Your task to perform on an android device: Open CNN.com Image 0: 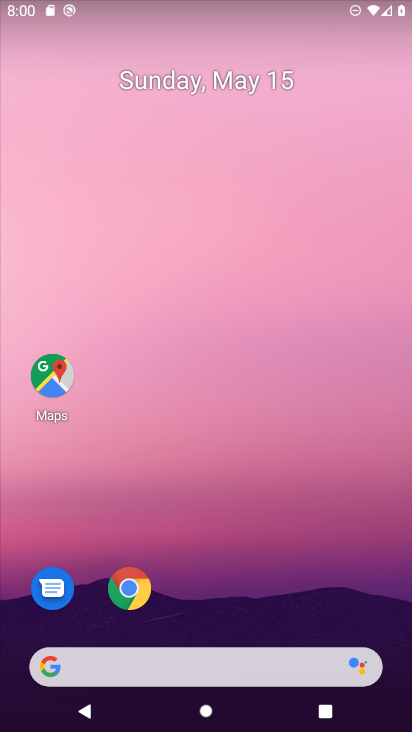
Step 0: click (126, 591)
Your task to perform on an android device: Open CNN.com Image 1: 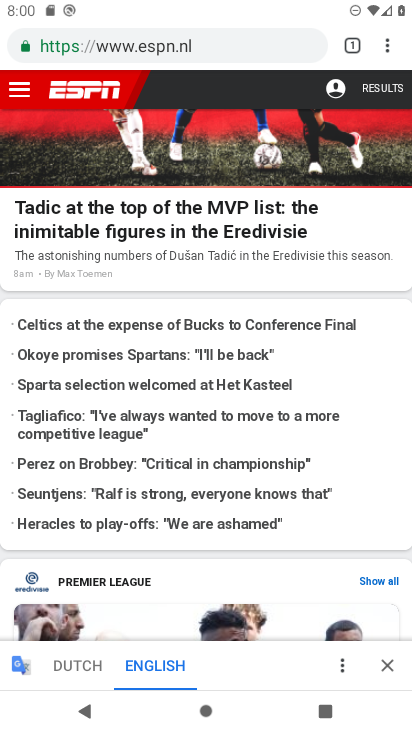
Step 1: click (353, 44)
Your task to perform on an android device: Open CNN.com Image 2: 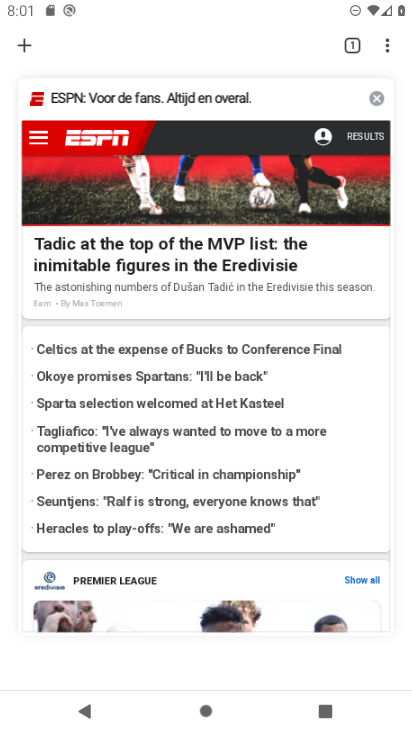
Step 2: click (371, 91)
Your task to perform on an android device: Open CNN.com Image 3: 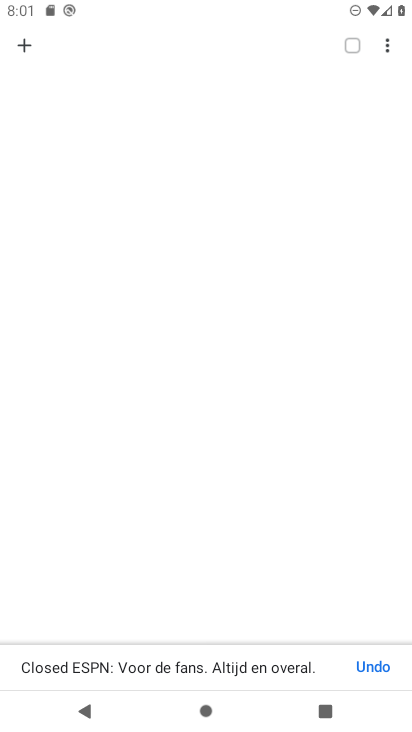
Step 3: click (24, 43)
Your task to perform on an android device: Open CNN.com Image 4: 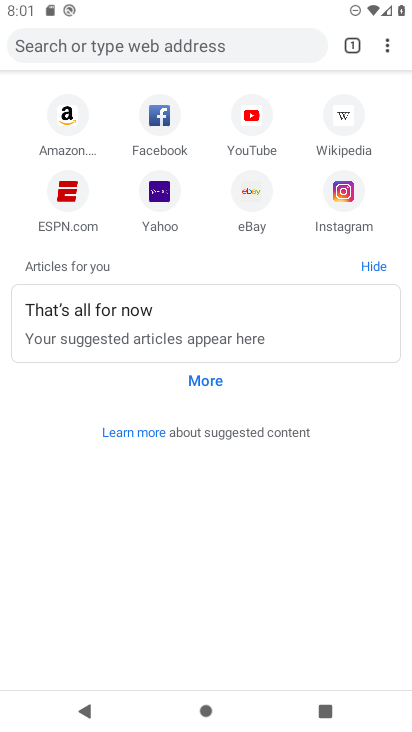
Step 4: click (109, 43)
Your task to perform on an android device: Open CNN.com Image 5: 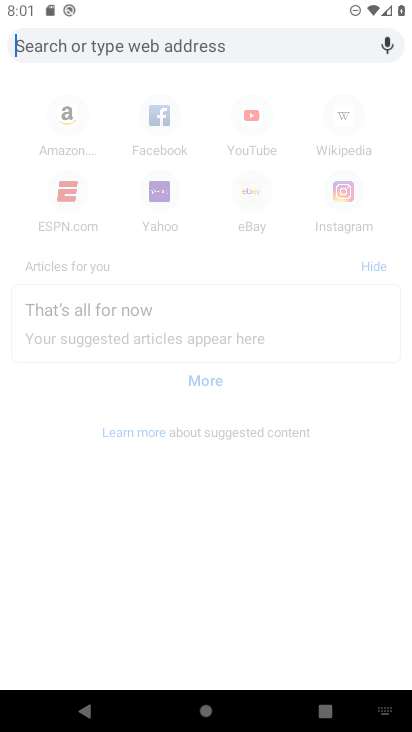
Step 5: type "cnn.com"
Your task to perform on an android device: Open CNN.com Image 6: 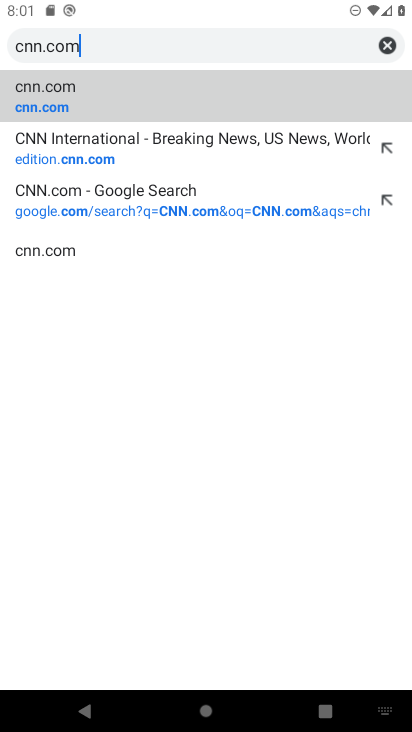
Step 6: click (69, 92)
Your task to perform on an android device: Open CNN.com Image 7: 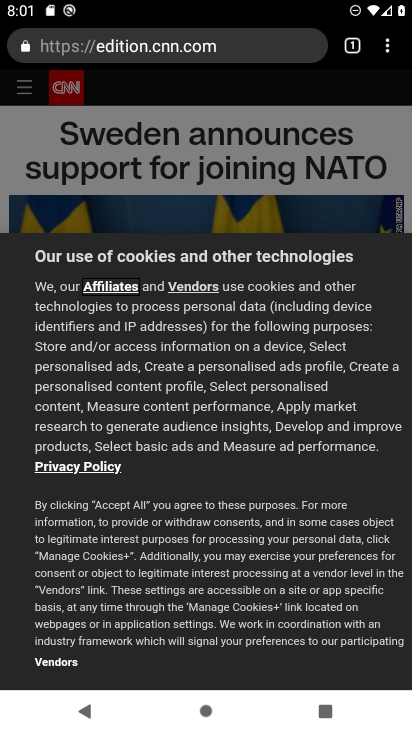
Step 7: task complete